Your task to perform on an android device: toggle sleep mode Image 0: 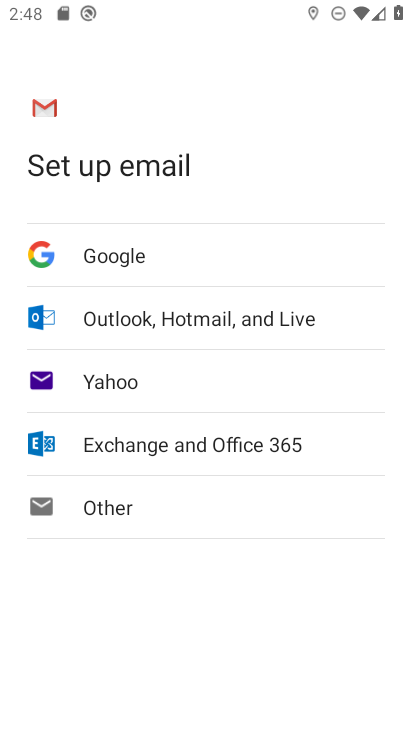
Step 0: drag from (198, 610) to (253, 227)
Your task to perform on an android device: toggle sleep mode Image 1: 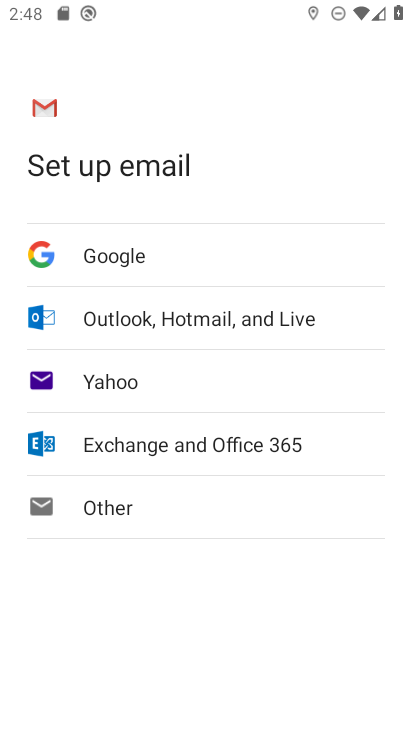
Step 1: press home button
Your task to perform on an android device: toggle sleep mode Image 2: 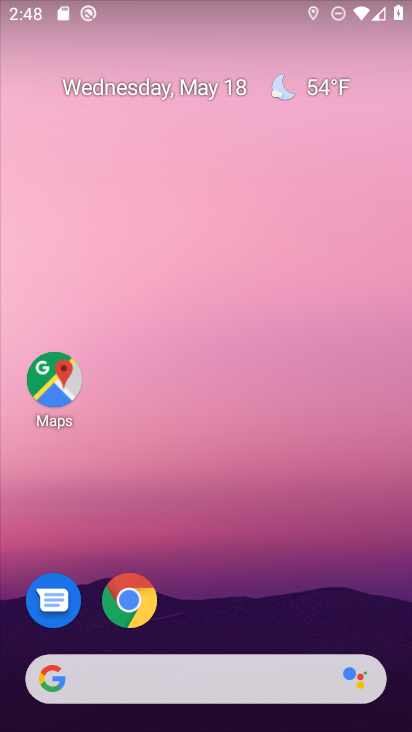
Step 2: drag from (258, 627) to (300, 203)
Your task to perform on an android device: toggle sleep mode Image 3: 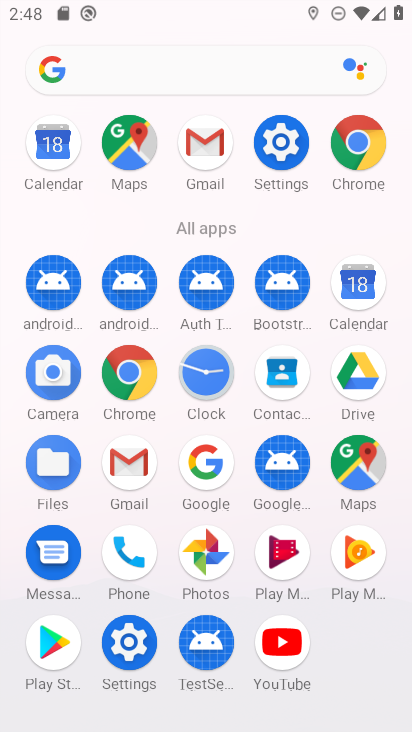
Step 3: click (124, 645)
Your task to perform on an android device: toggle sleep mode Image 4: 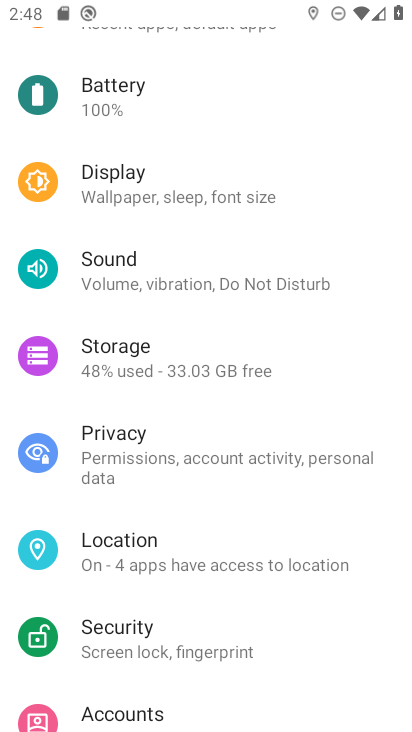
Step 4: drag from (215, 197) to (198, 496)
Your task to perform on an android device: toggle sleep mode Image 5: 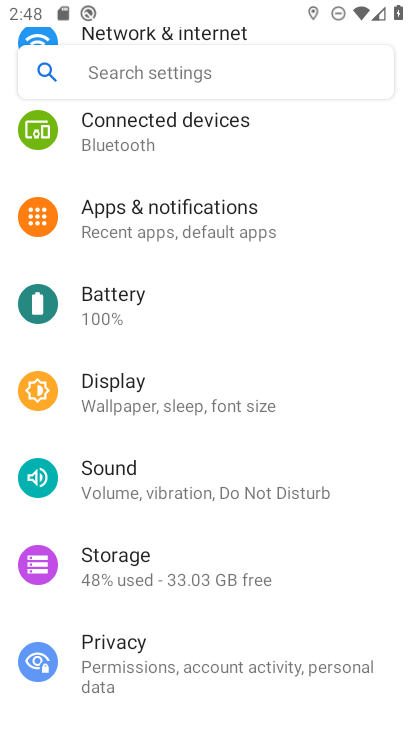
Step 5: click (213, 81)
Your task to perform on an android device: toggle sleep mode Image 6: 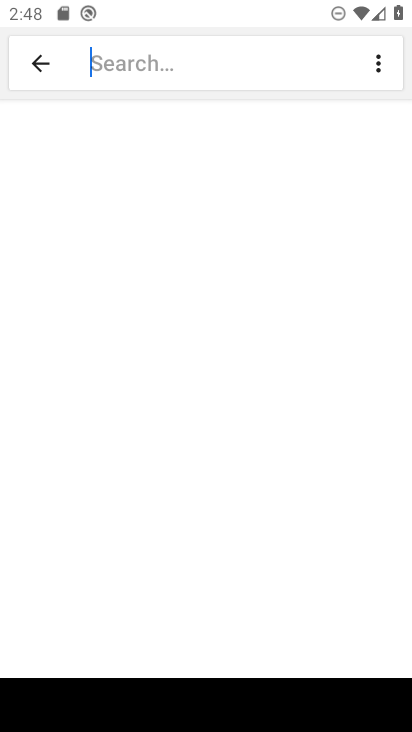
Step 6: type "sleep mode"
Your task to perform on an android device: toggle sleep mode Image 7: 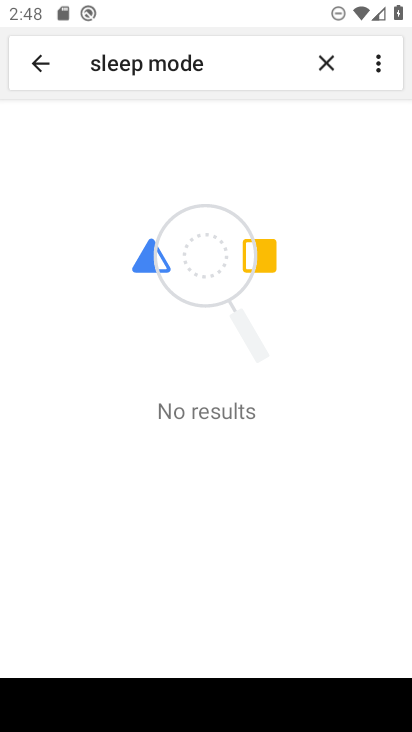
Step 7: task complete